Your task to perform on an android device: turn off priority inbox in the gmail app Image 0: 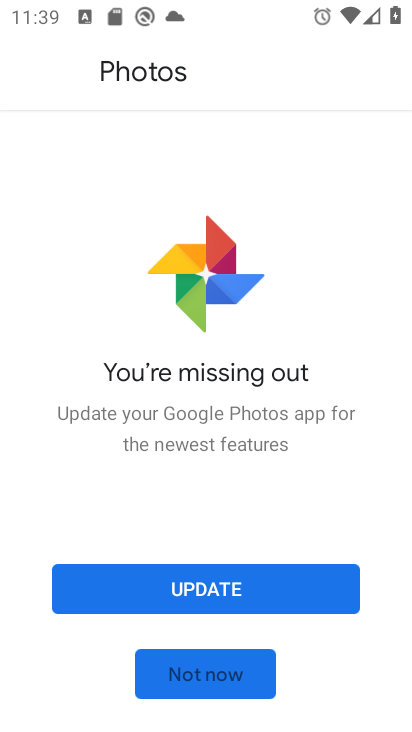
Step 0: press home button
Your task to perform on an android device: turn off priority inbox in the gmail app Image 1: 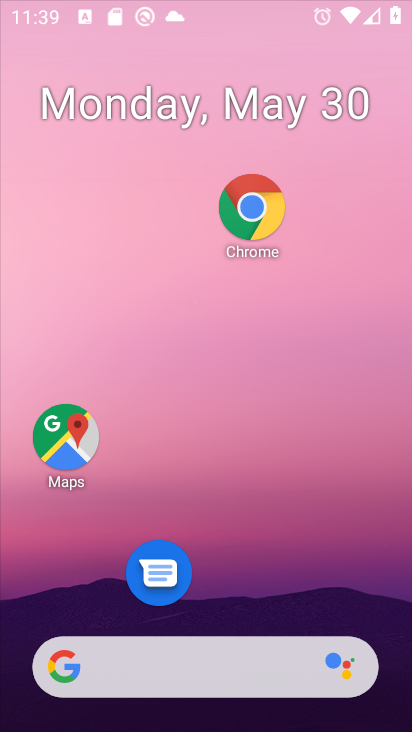
Step 1: drag from (229, 628) to (249, 149)
Your task to perform on an android device: turn off priority inbox in the gmail app Image 2: 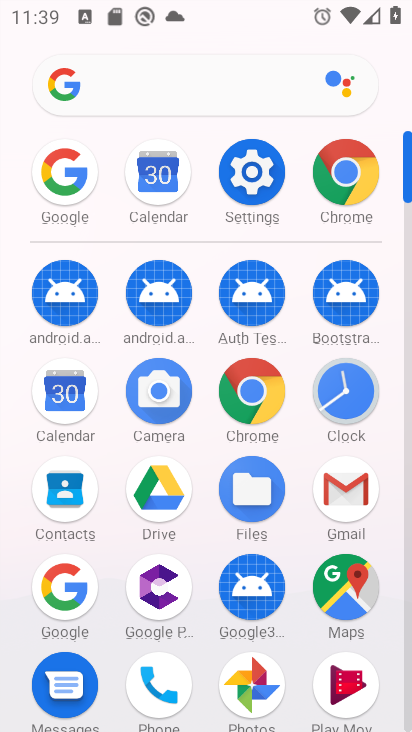
Step 2: click (354, 502)
Your task to perform on an android device: turn off priority inbox in the gmail app Image 3: 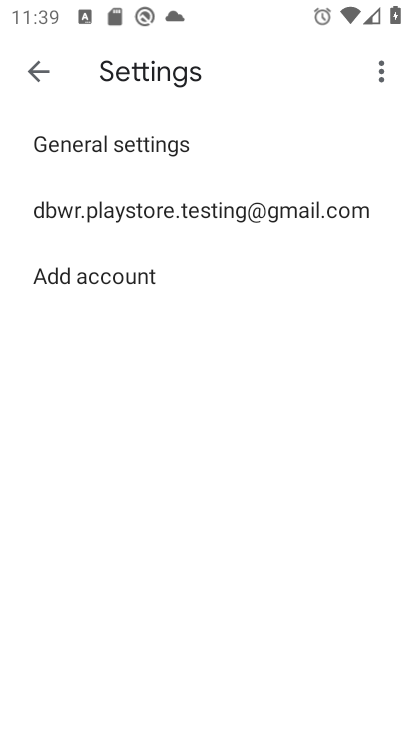
Step 3: click (261, 218)
Your task to perform on an android device: turn off priority inbox in the gmail app Image 4: 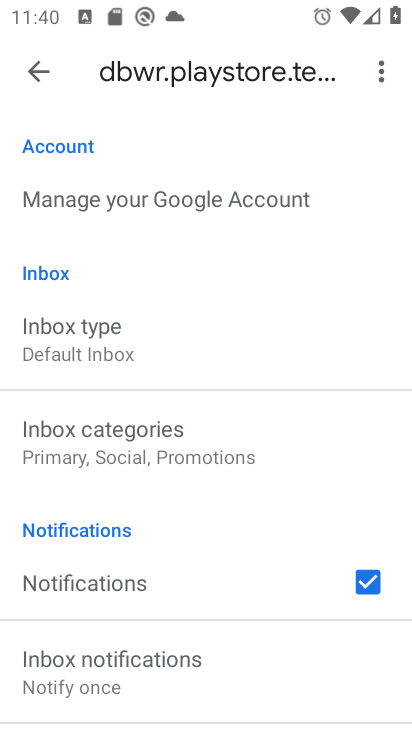
Step 4: click (110, 343)
Your task to perform on an android device: turn off priority inbox in the gmail app Image 5: 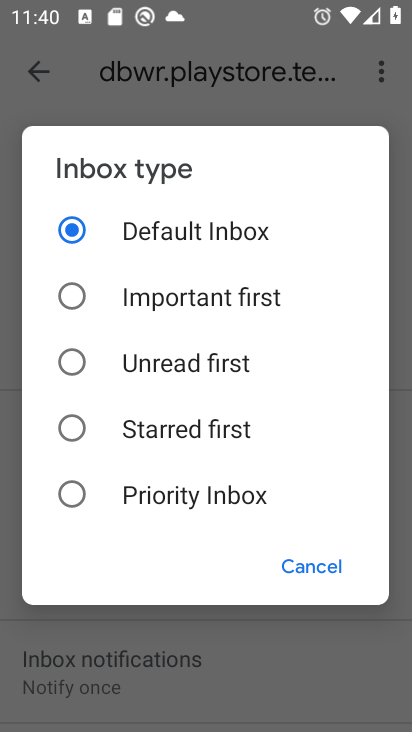
Step 5: task complete